Your task to perform on an android device: install app "Microsoft Authenticator" Image 0: 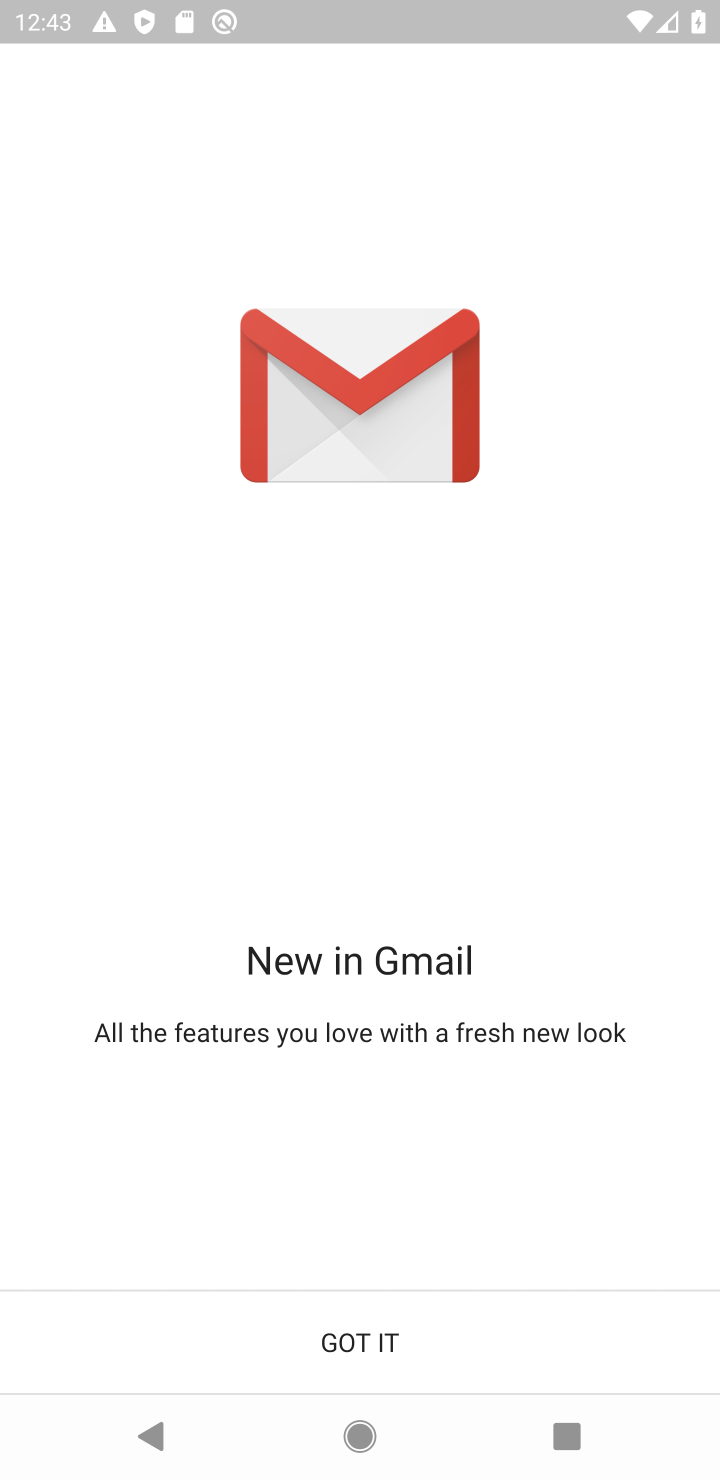
Step 0: press home button
Your task to perform on an android device: install app "Microsoft Authenticator" Image 1: 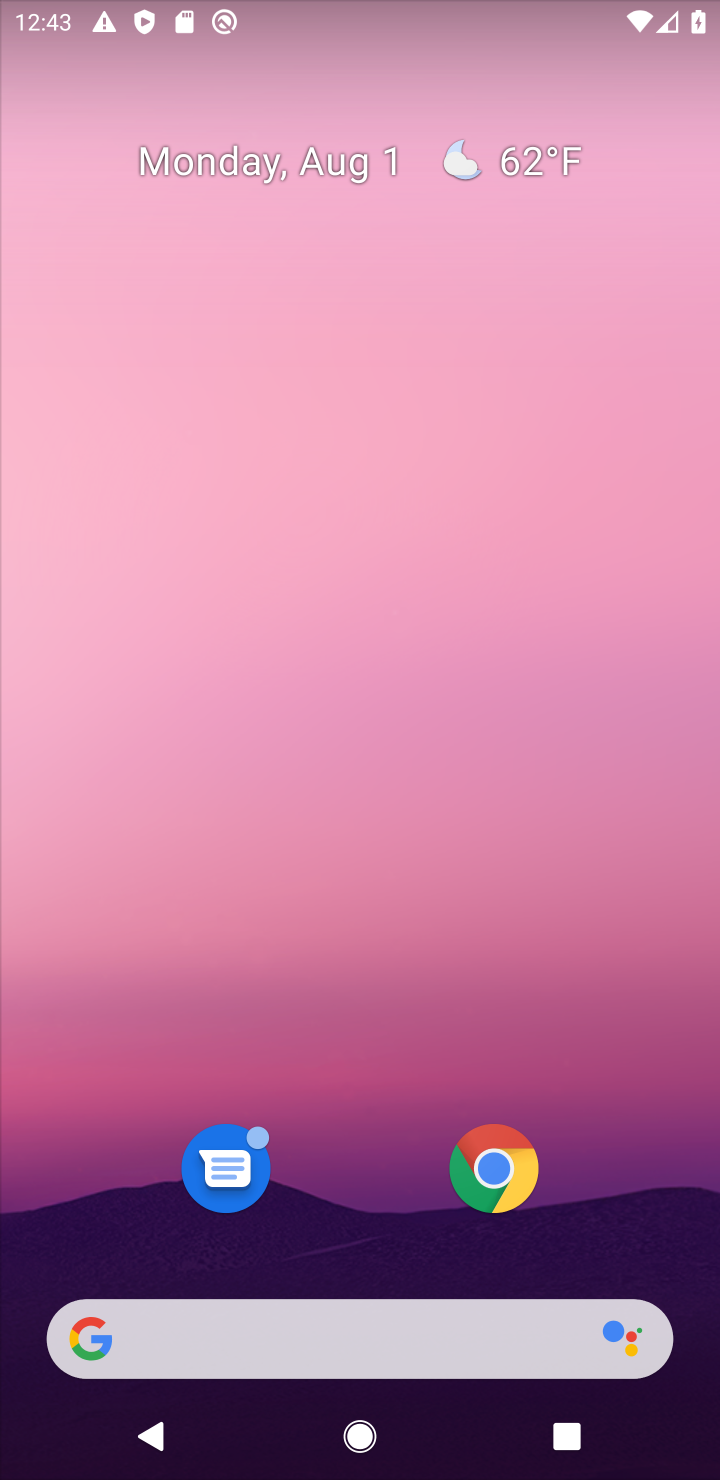
Step 1: drag from (419, 1475) to (420, 110)
Your task to perform on an android device: install app "Microsoft Authenticator" Image 2: 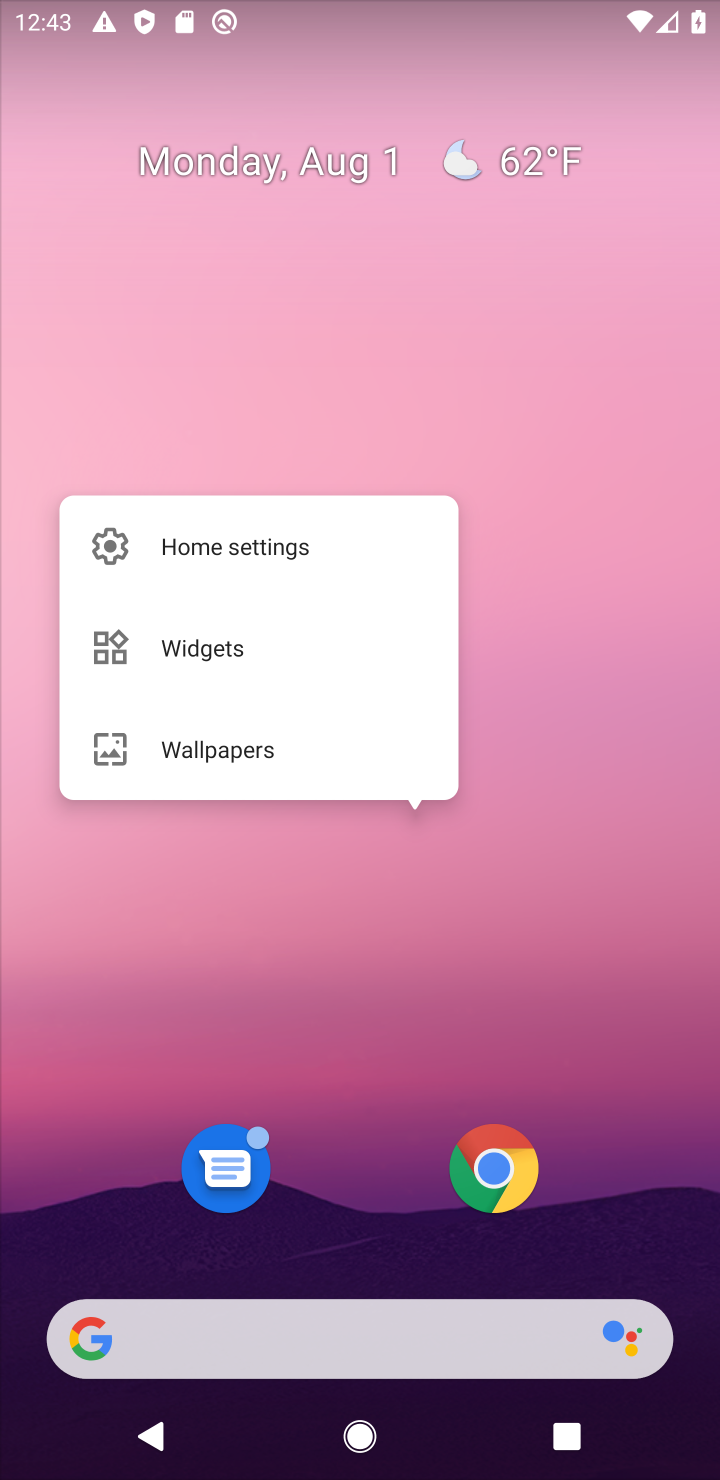
Step 2: click (506, 395)
Your task to perform on an android device: install app "Microsoft Authenticator" Image 3: 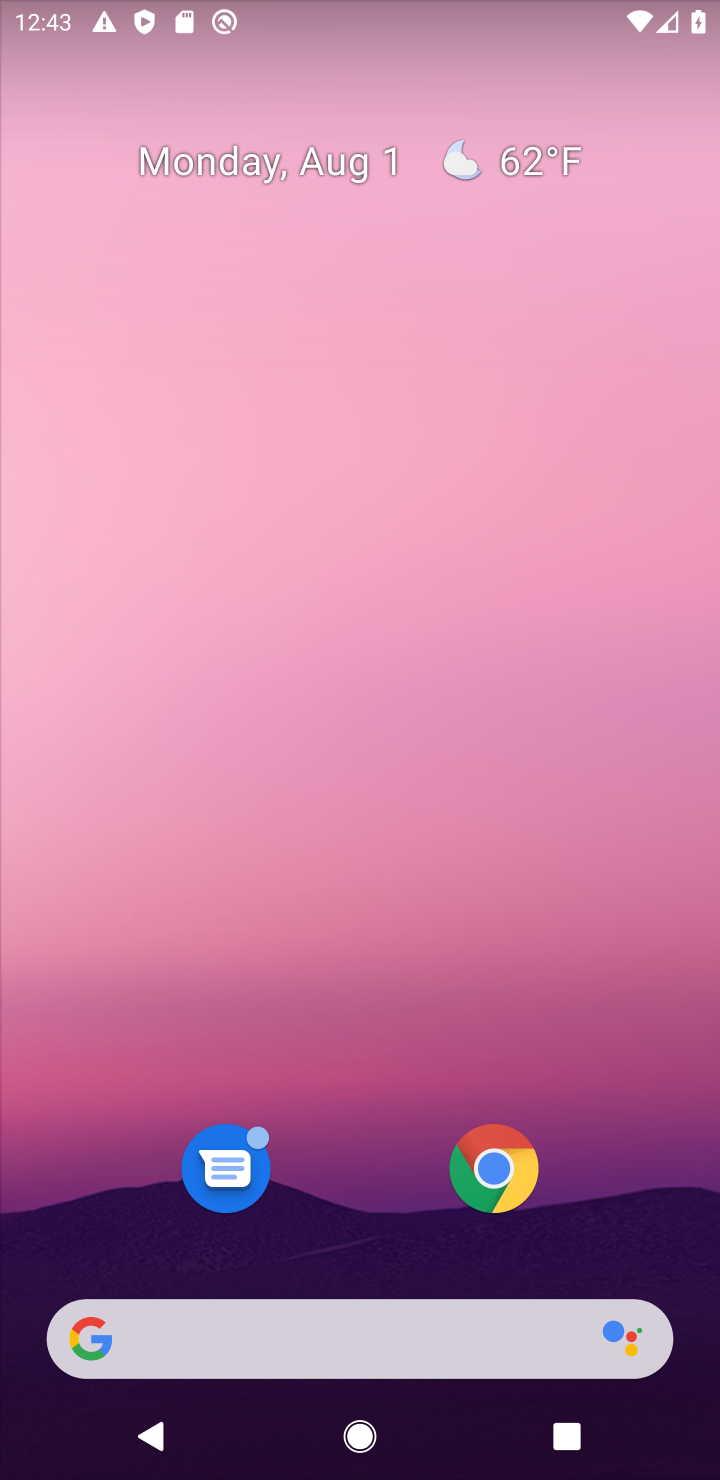
Step 3: drag from (390, 1471) to (392, 382)
Your task to perform on an android device: install app "Microsoft Authenticator" Image 4: 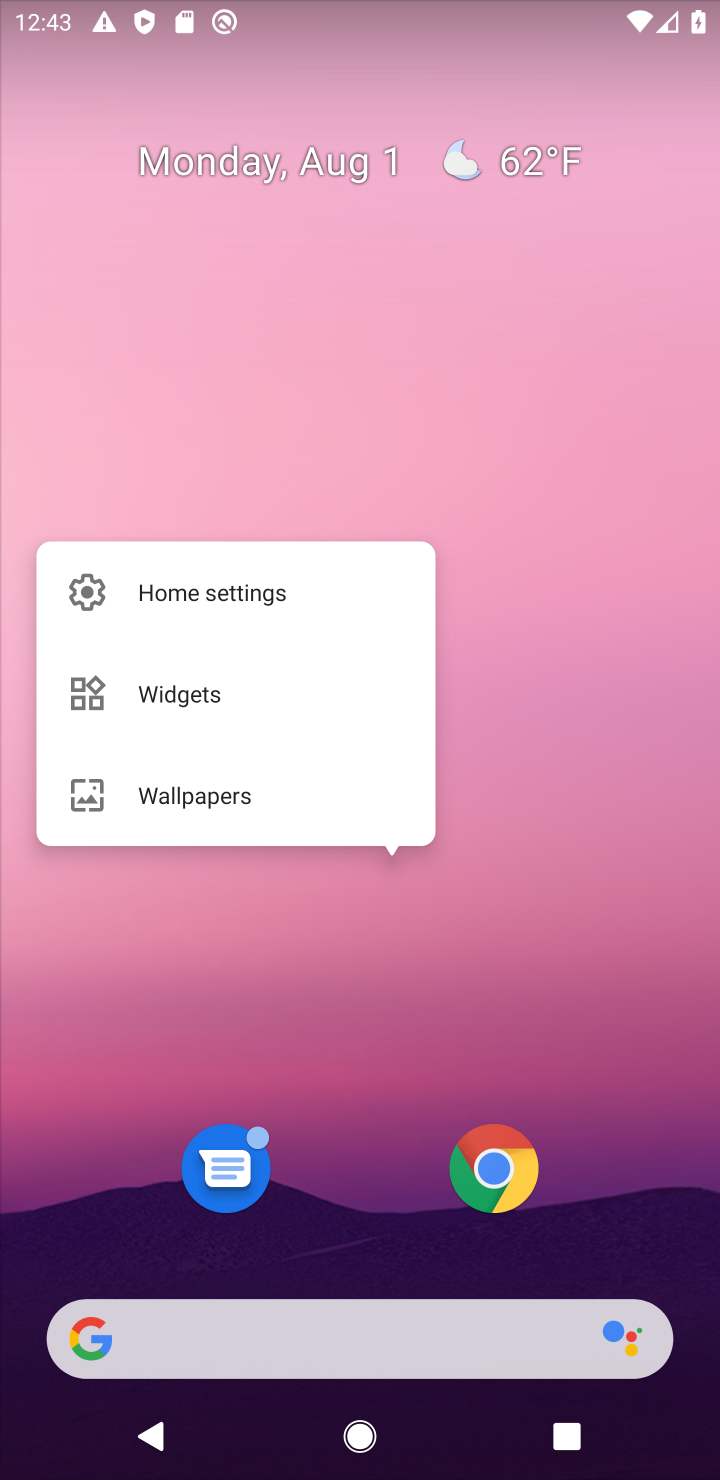
Step 4: click (427, 365)
Your task to perform on an android device: install app "Microsoft Authenticator" Image 5: 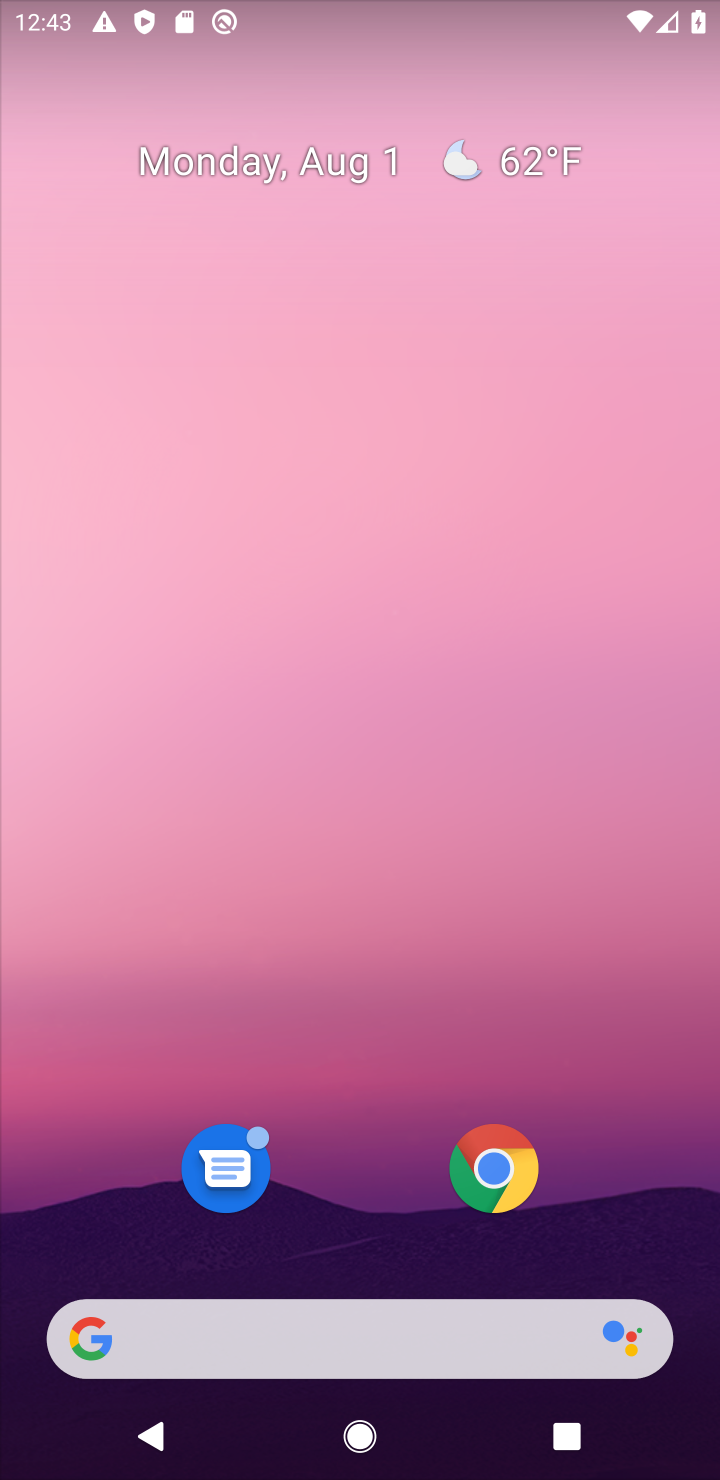
Step 5: drag from (408, 1467) to (361, 302)
Your task to perform on an android device: install app "Microsoft Authenticator" Image 6: 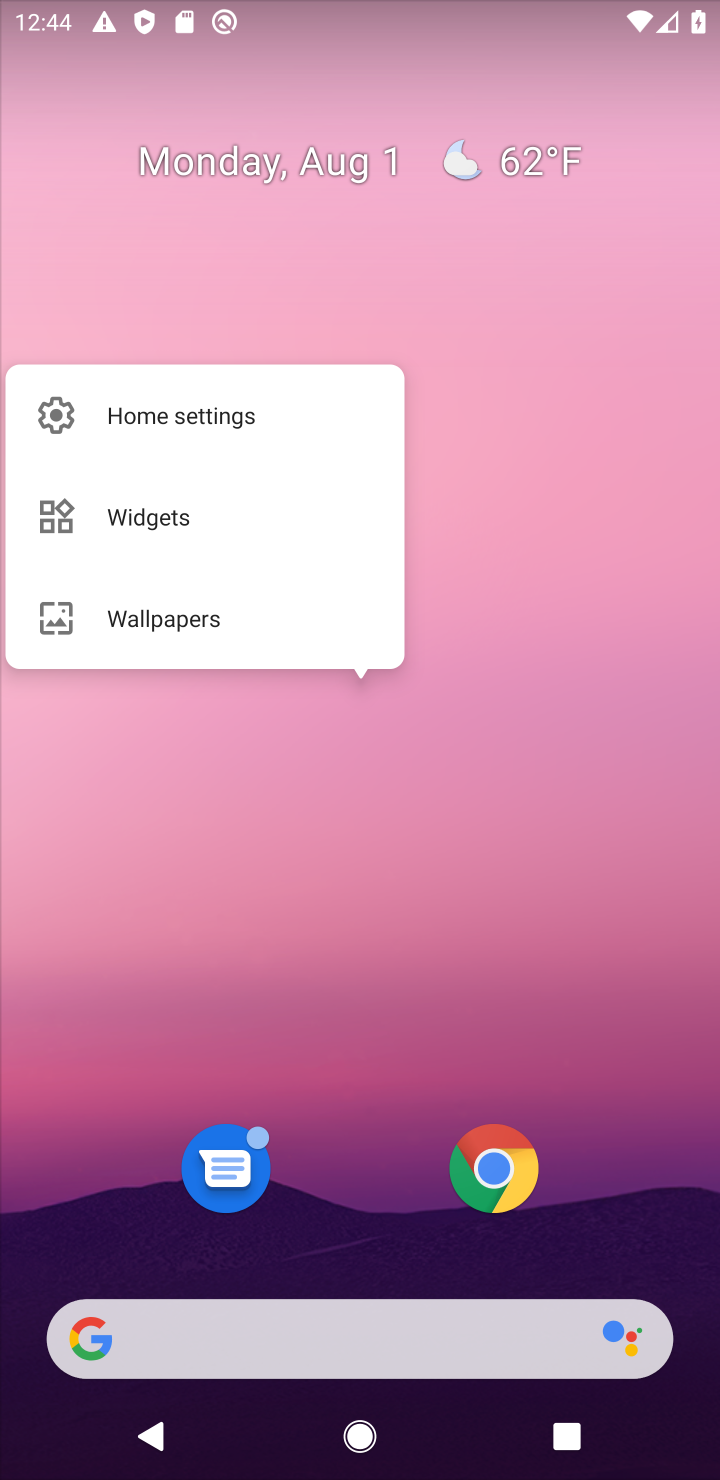
Step 6: click (254, 903)
Your task to perform on an android device: install app "Microsoft Authenticator" Image 7: 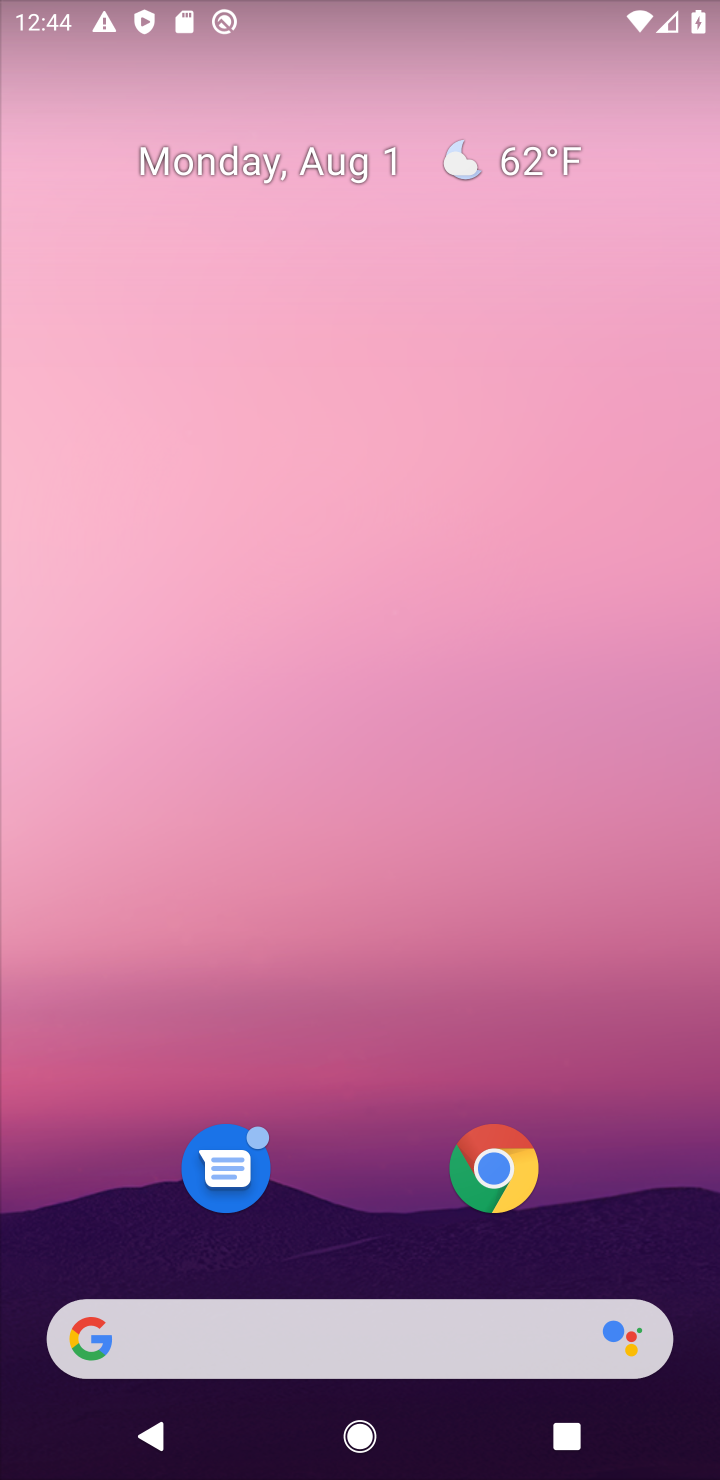
Step 7: drag from (426, 1436) to (426, 578)
Your task to perform on an android device: install app "Microsoft Authenticator" Image 8: 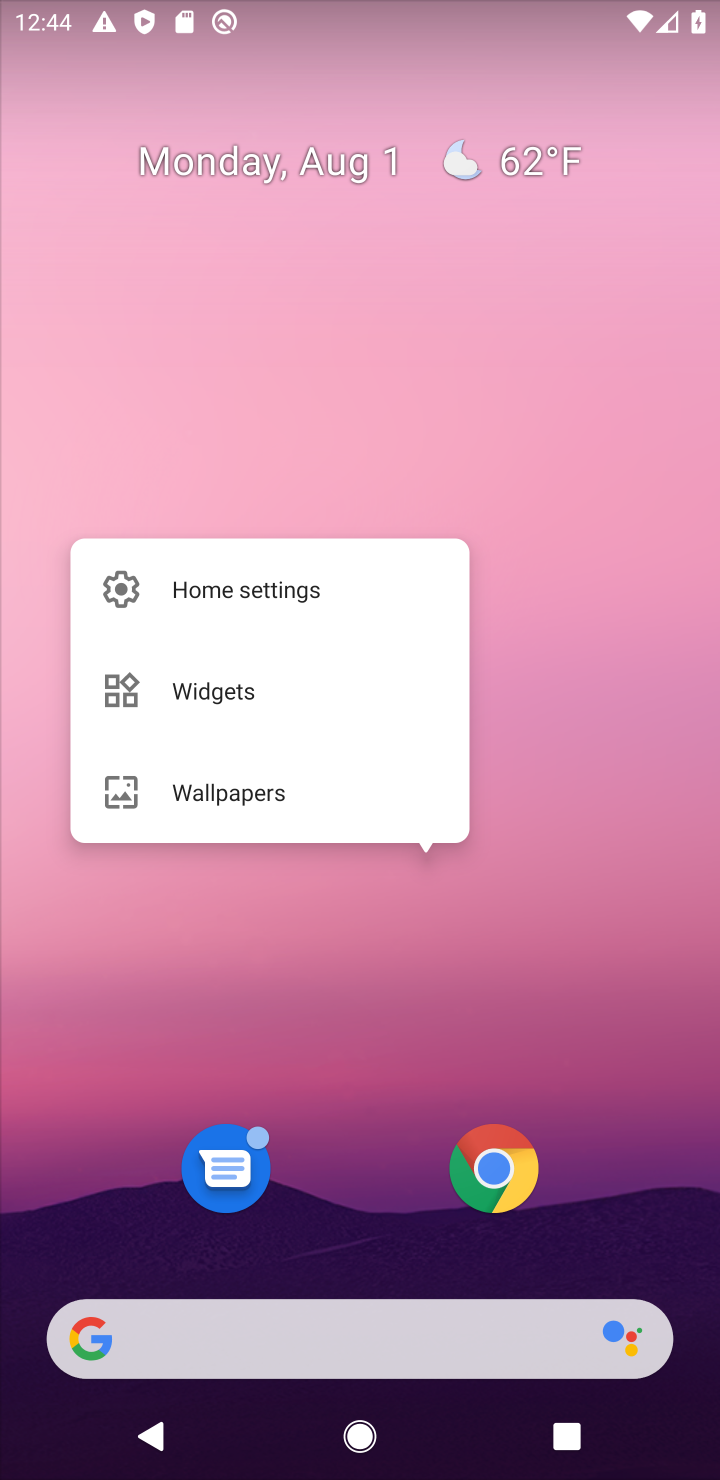
Step 8: click (470, 416)
Your task to perform on an android device: install app "Microsoft Authenticator" Image 9: 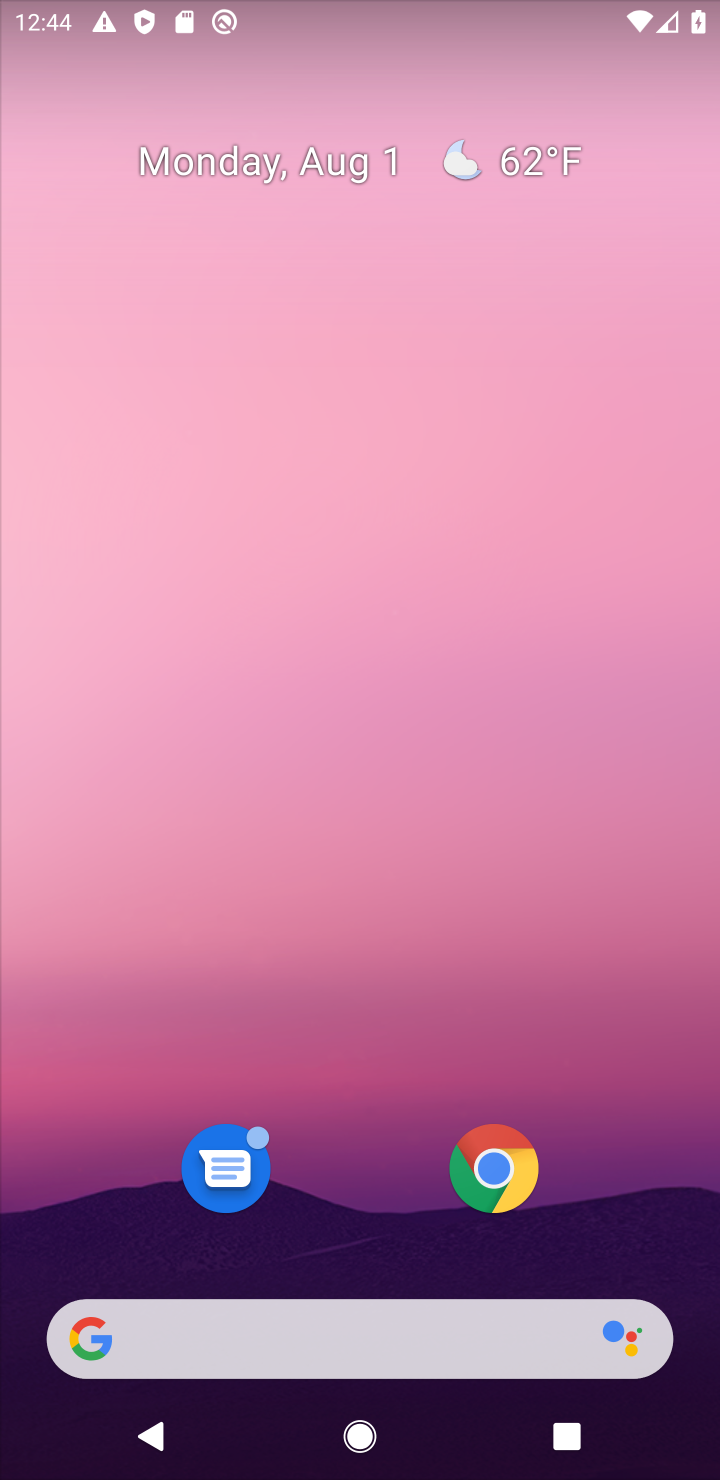
Step 9: press home button
Your task to perform on an android device: install app "Microsoft Authenticator" Image 10: 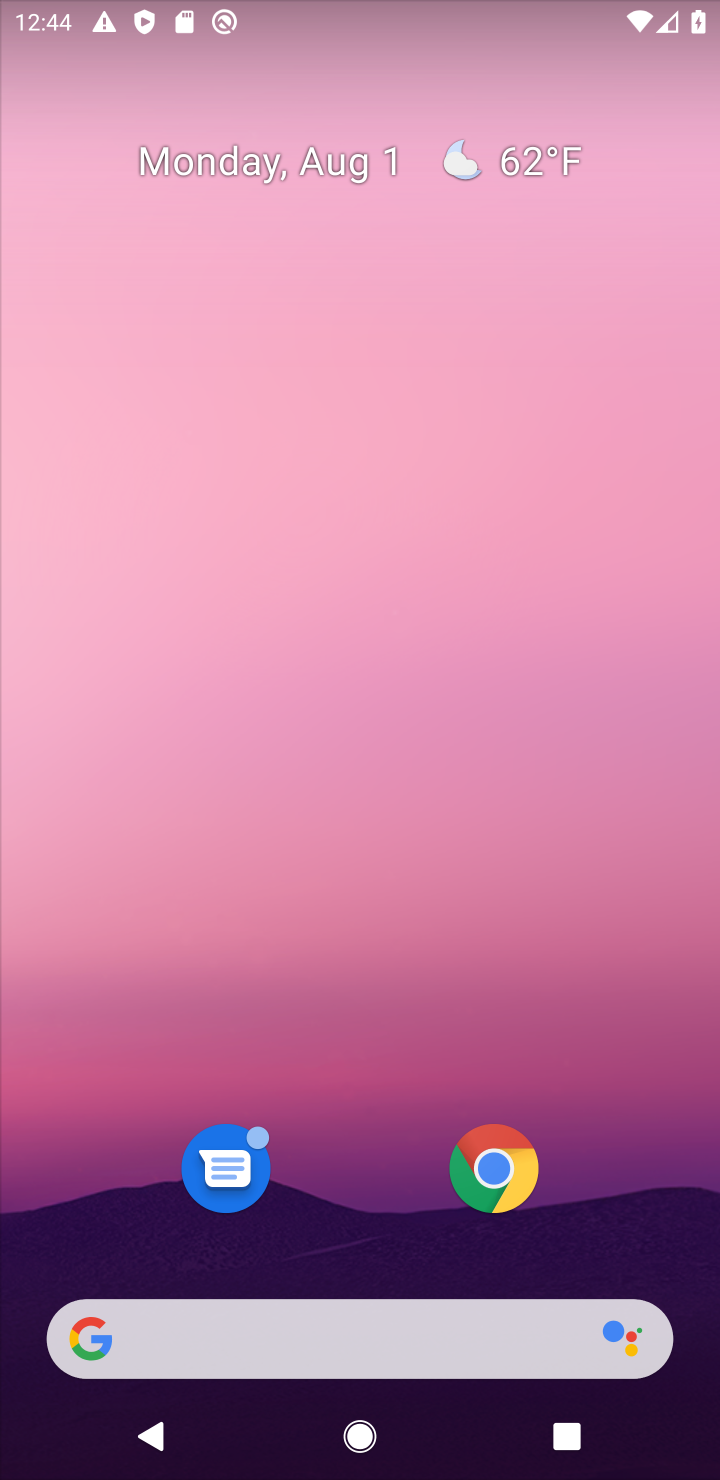
Step 10: drag from (399, 1125) to (420, 200)
Your task to perform on an android device: install app "Microsoft Authenticator" Image 11: 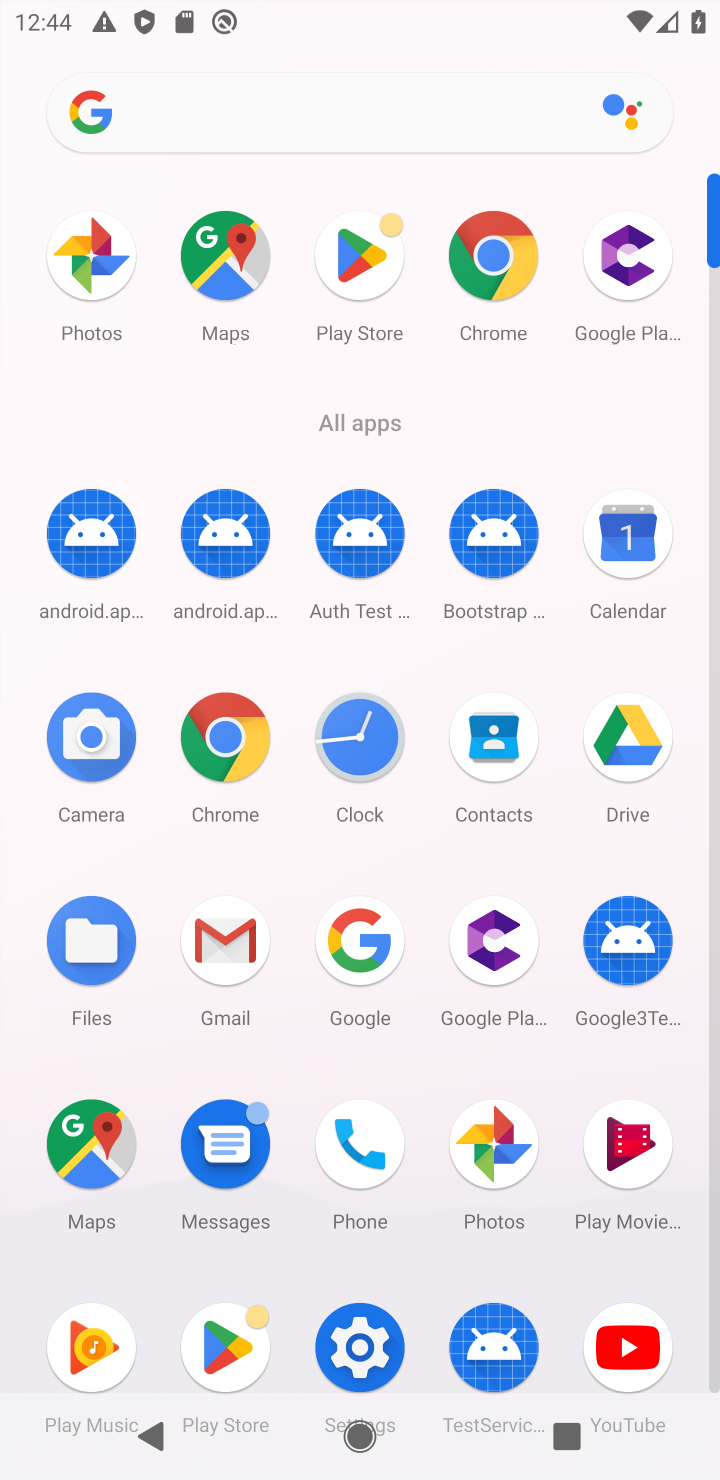
Step 11: click (351, 248)
Your task to perform on an android device: install app "Microsoft Authenticator" Image 12: 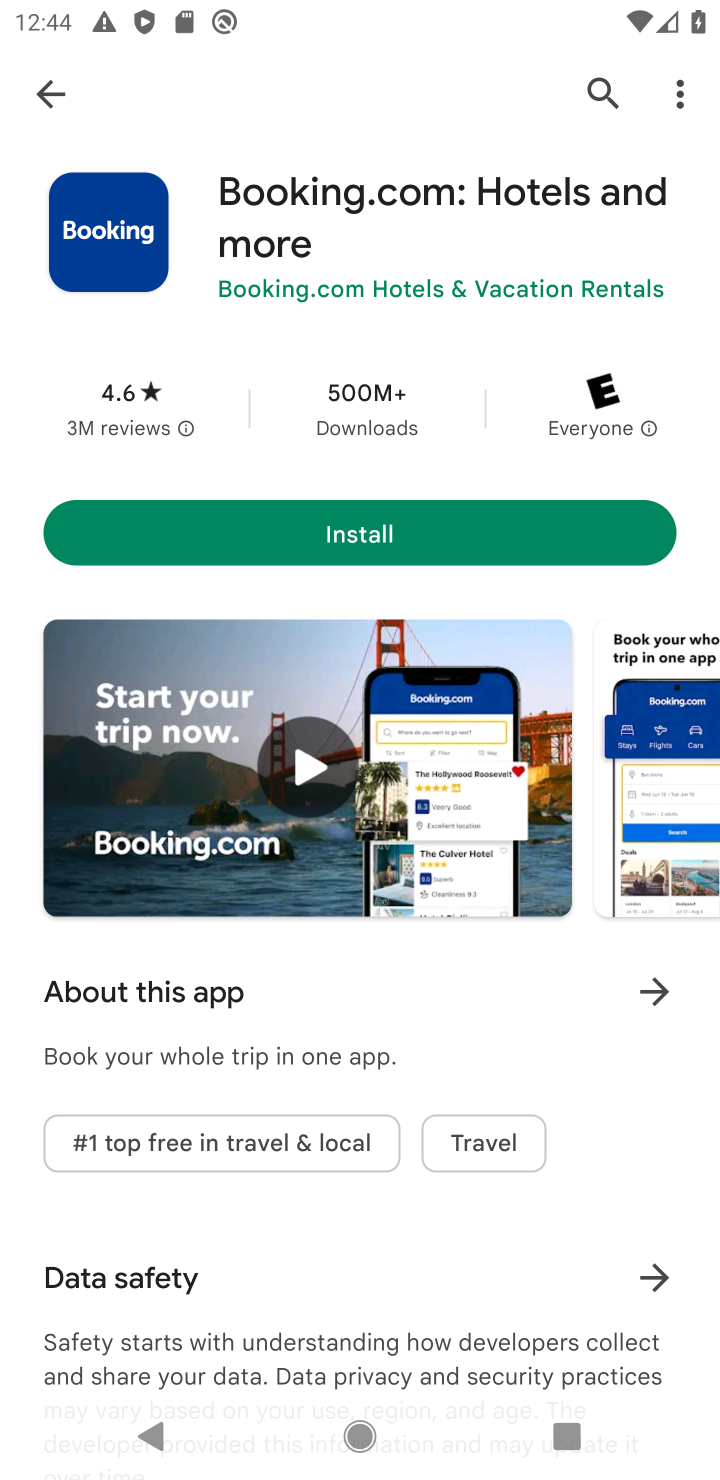
Step 12: click (600, 94)
Your task to perform on an android device: install app "Microsoft Authenticator" Image 13: 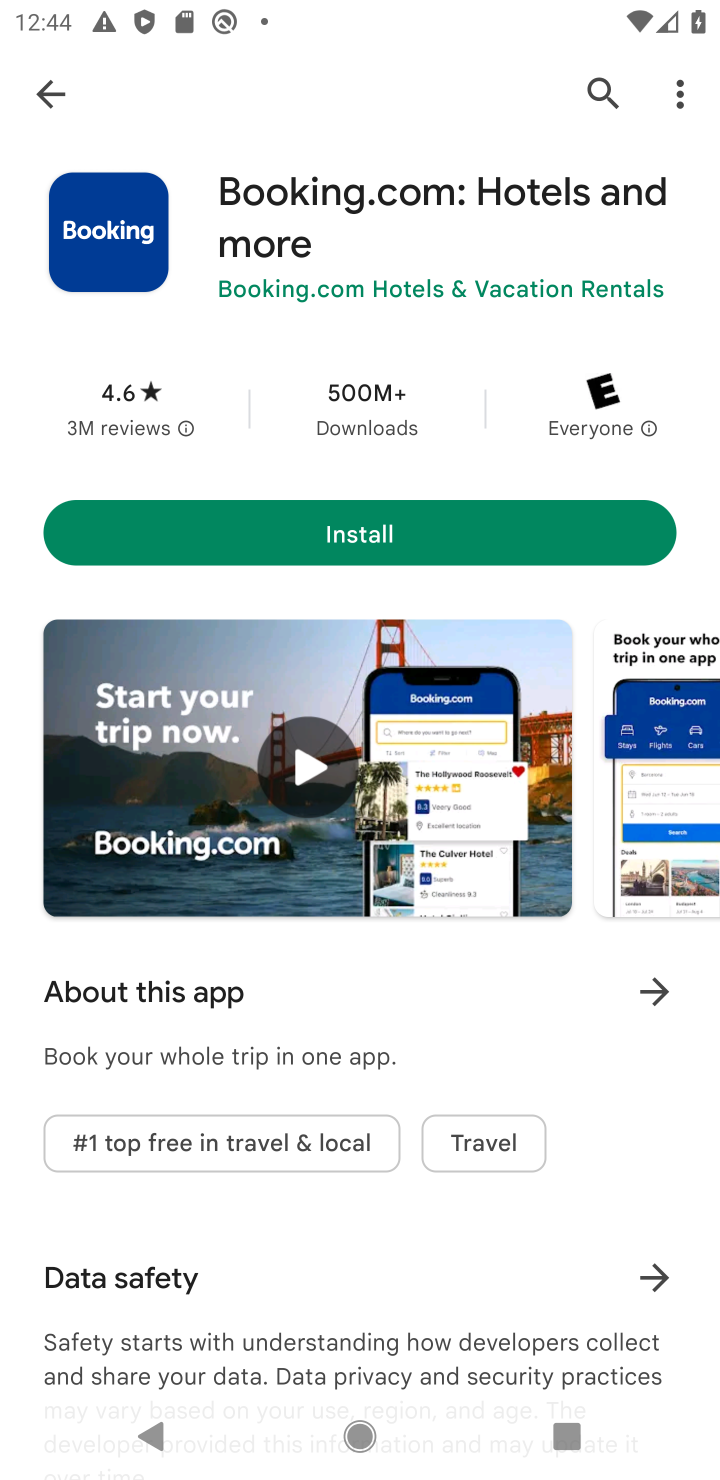
Step 13: click (607, 80)
Your task to perform on an android device: install app "Microsoft Authenticator" Image 14: 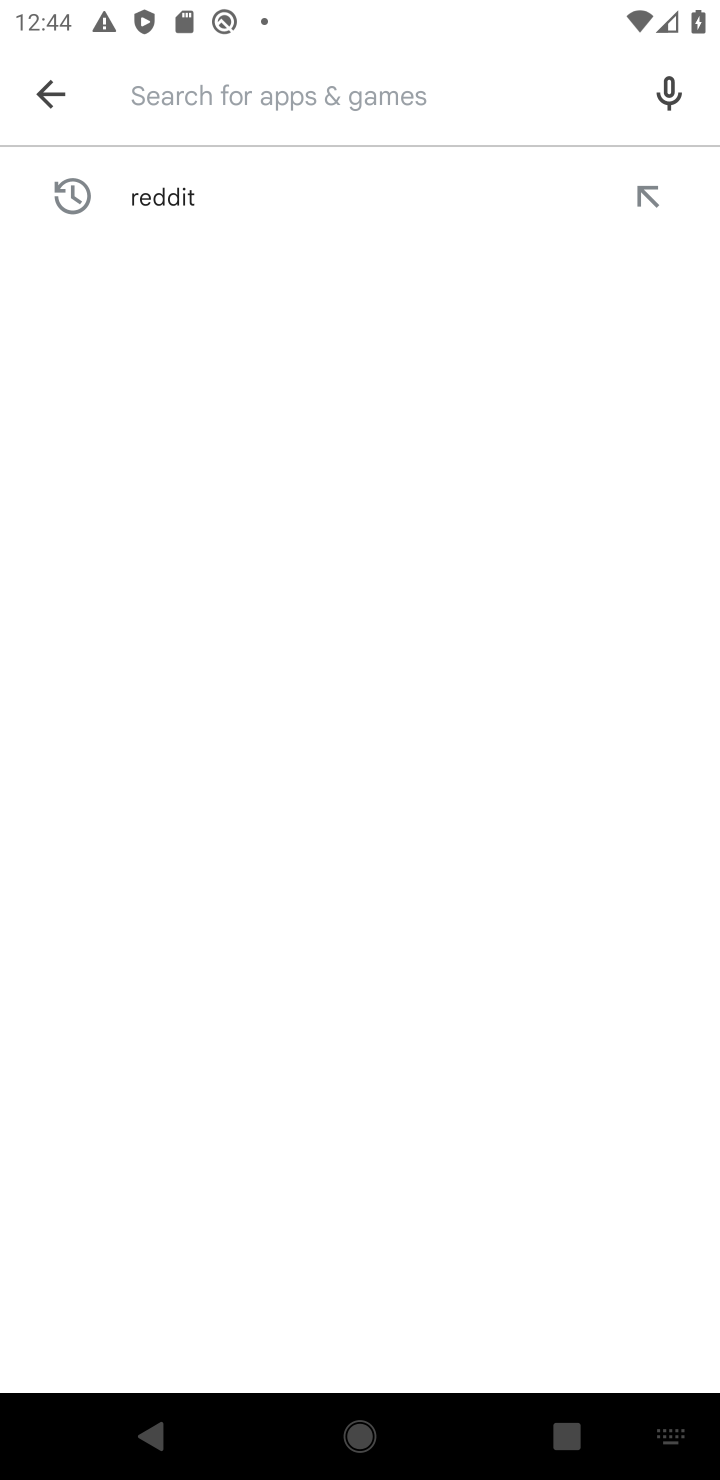
Step 14: type "Microsoft Authenticator"
Your task to perform on an android device: install app "Microsoft Authenticator" Image 15: 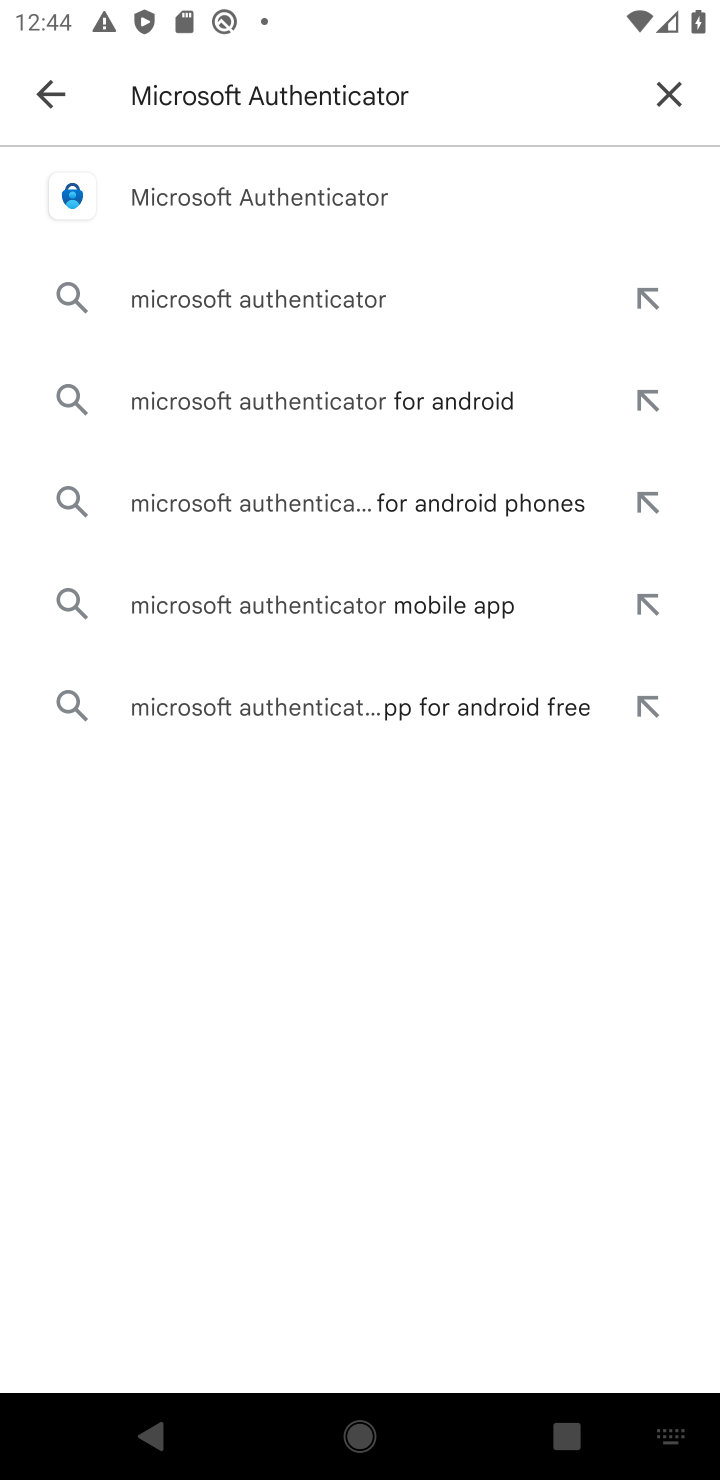
Step 15: click (207, 187)
Your task to perform on an android device: install app "Microsoft Authenticator" Image 16: 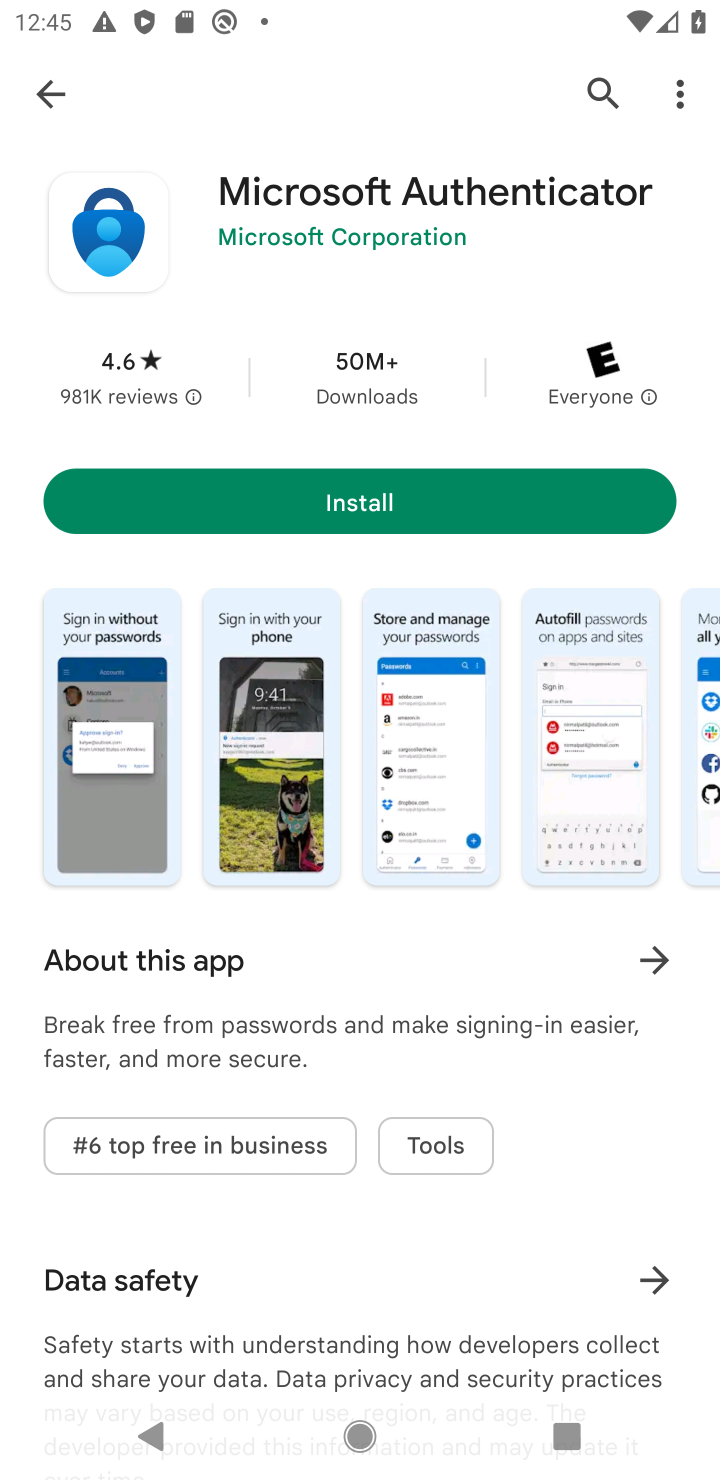
Step 16: click (347, 486)
Your task to perform on an android device: install app "Microsoft Authenticator" Image 17: 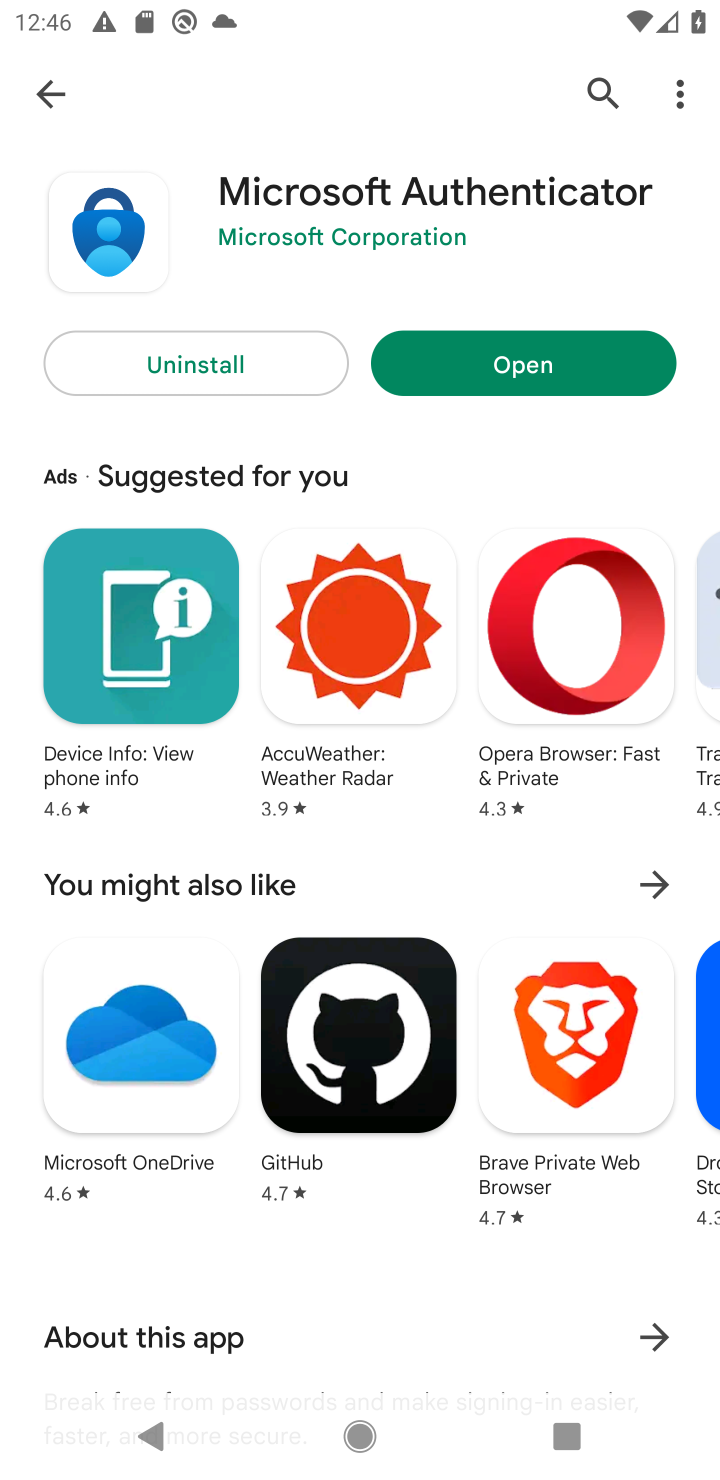
Step 17: task complete